Your task to perform on an android device: open app "Spotify" (install if not already installed) and go to login screen Image 0: 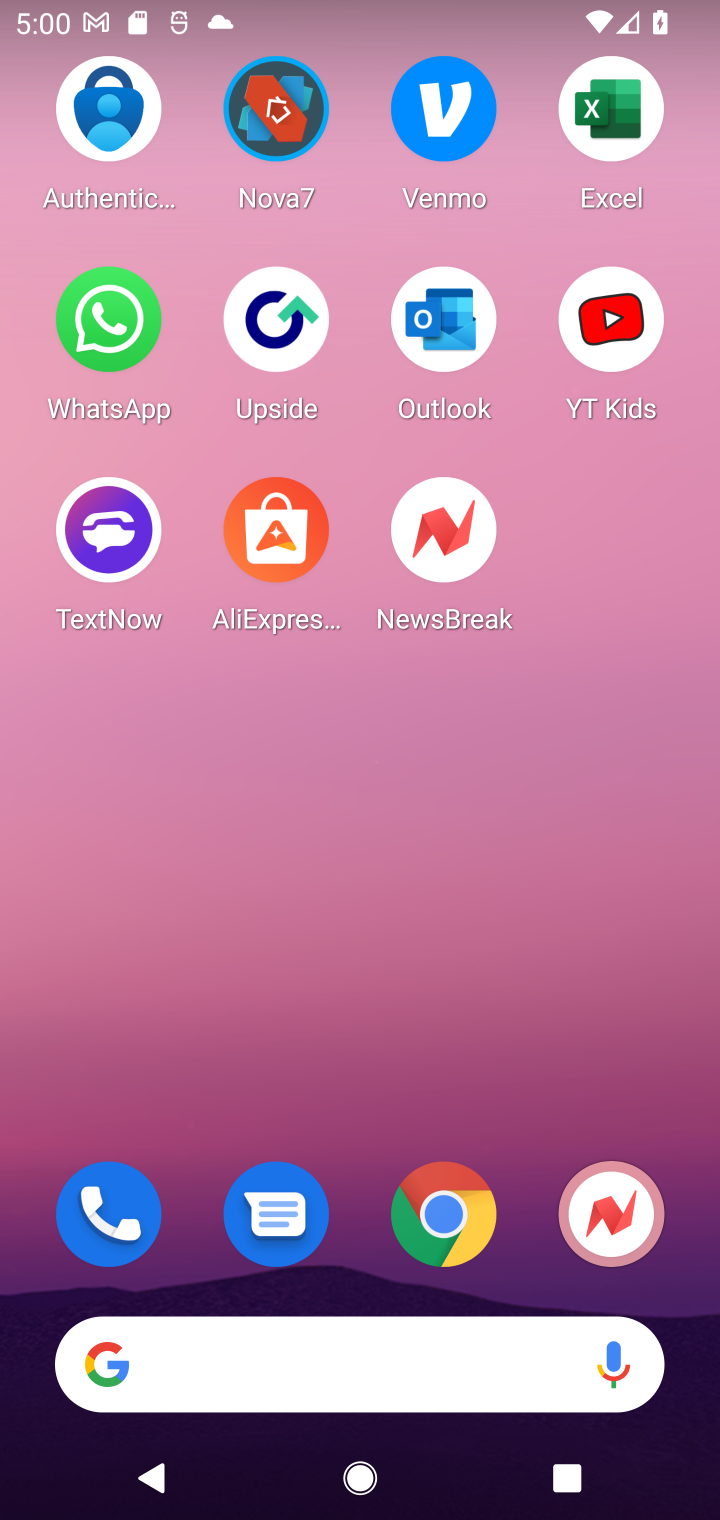
Step 0: drag from (367, 906) to (281, 50)
Your task to perform on an android device: open app "Spotify" (install if not already installed) and go to login screen Image 1: 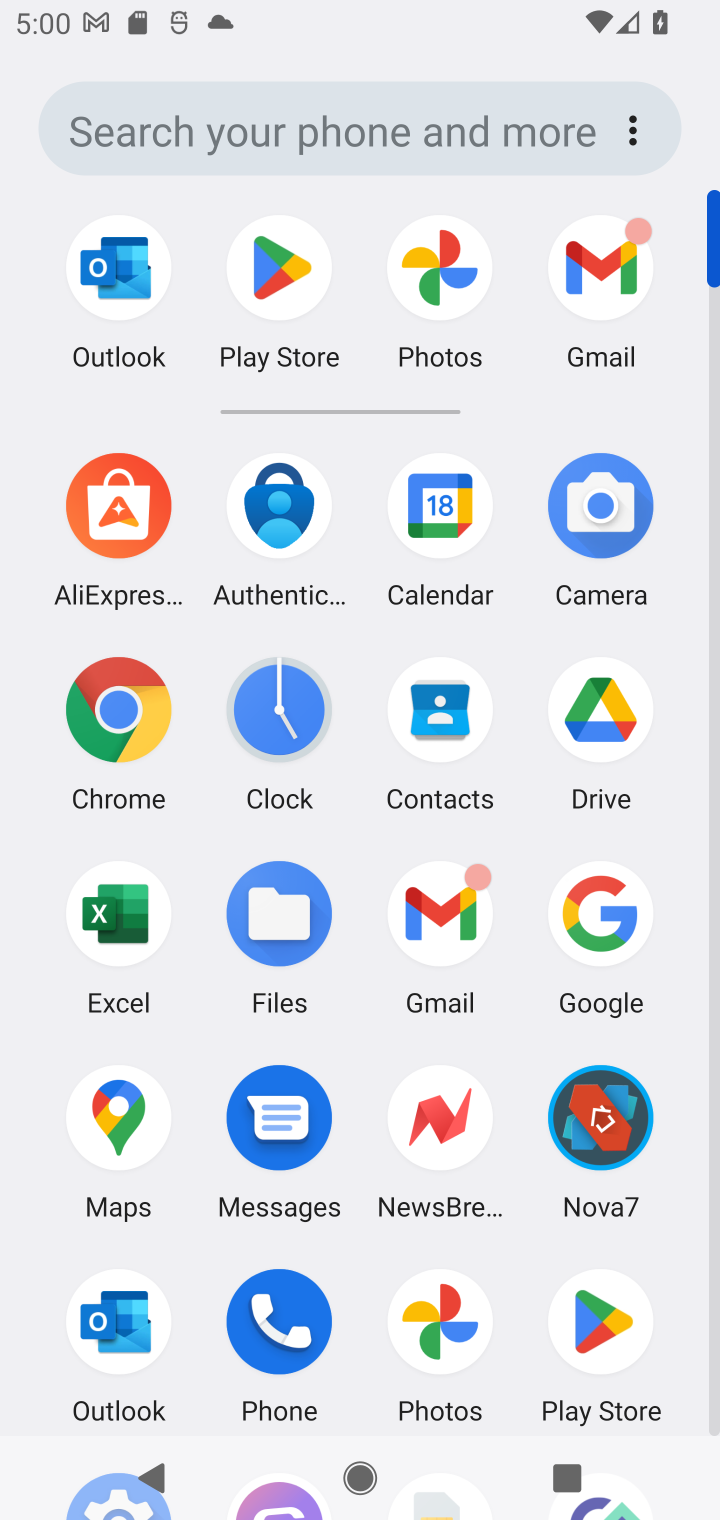
Step 1: click (600, 1351)
Your task to perform on an android device: open app "Spotify" (install if not already installed) and go to login screen Image 2: 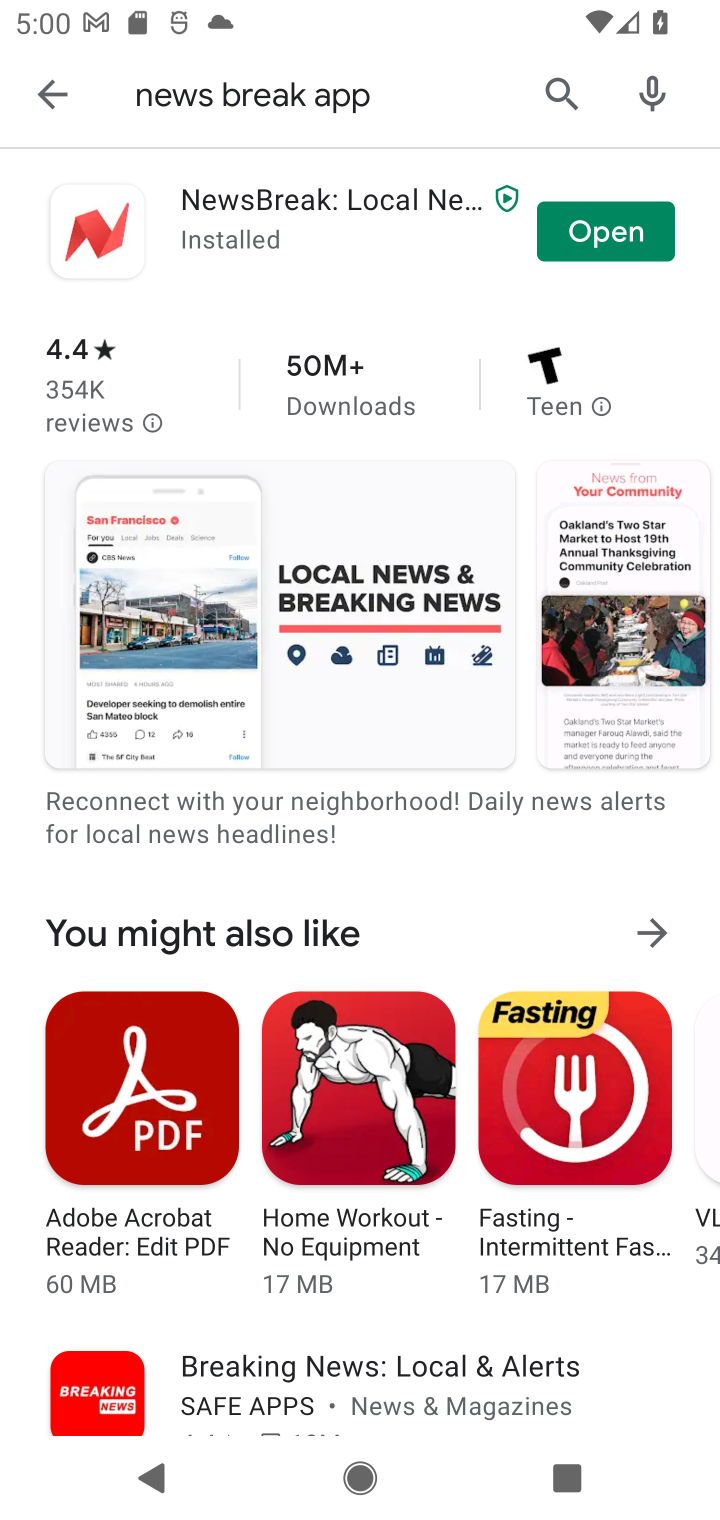
Step 2: click (380, 105)
Your task to perform on an android device: open app "Spotify" (install if not already installed) and go to login screen Image 3: 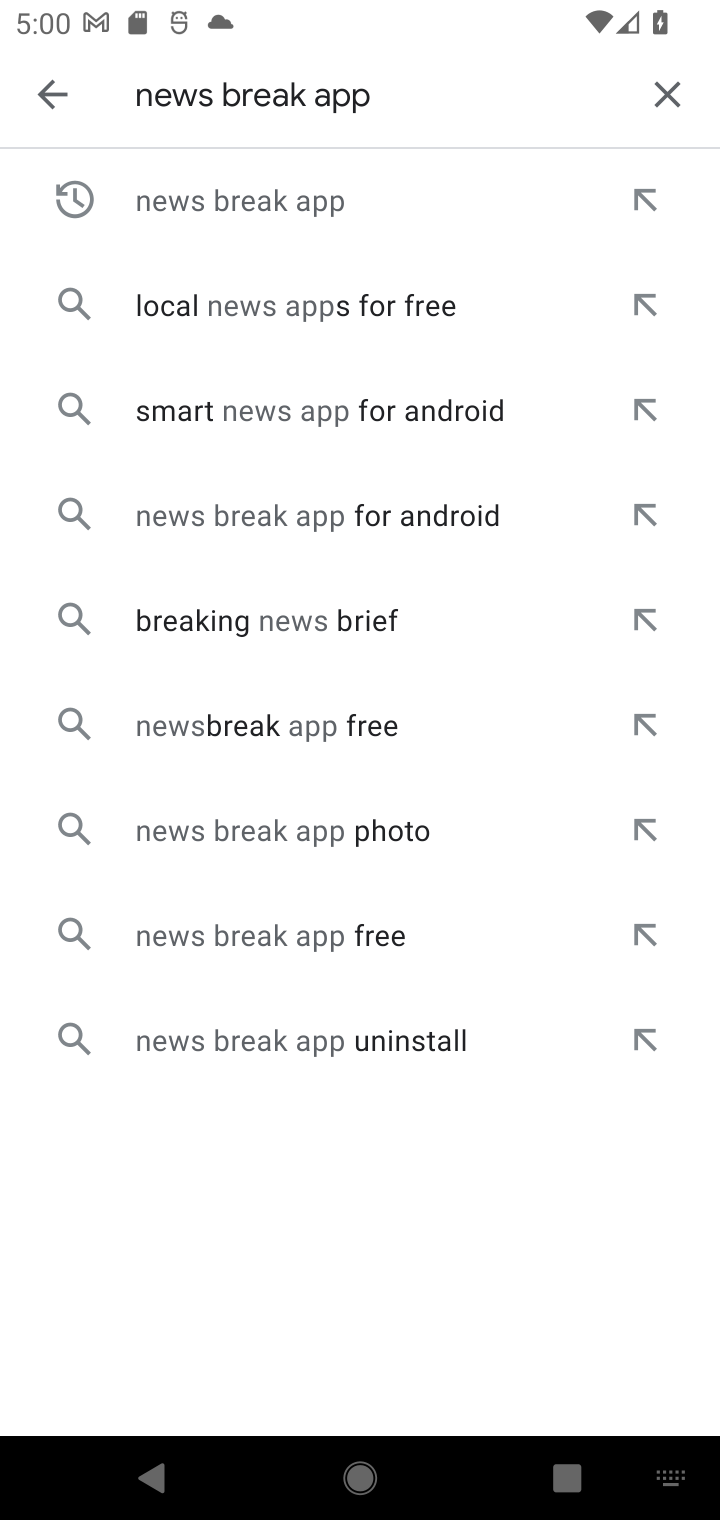
Step 3: click (658, 88)
Your task to perform on an android device: open app "Spotify" (install if not already installed) and go to login screen Image 4: 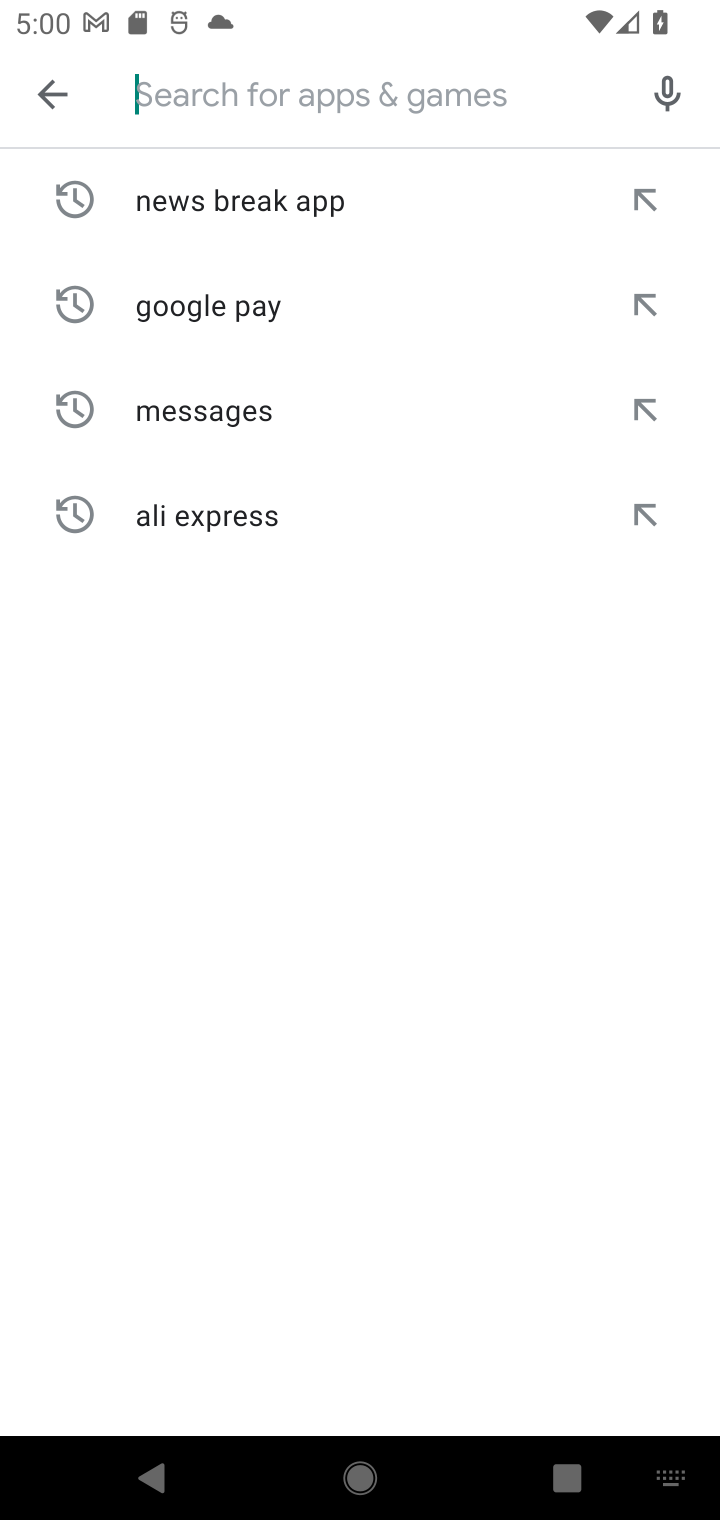
Step 4: type "spotify"
Your task to perform on an android device: open app "Spotify" (install if not already installed) and go to login screen Image 5: 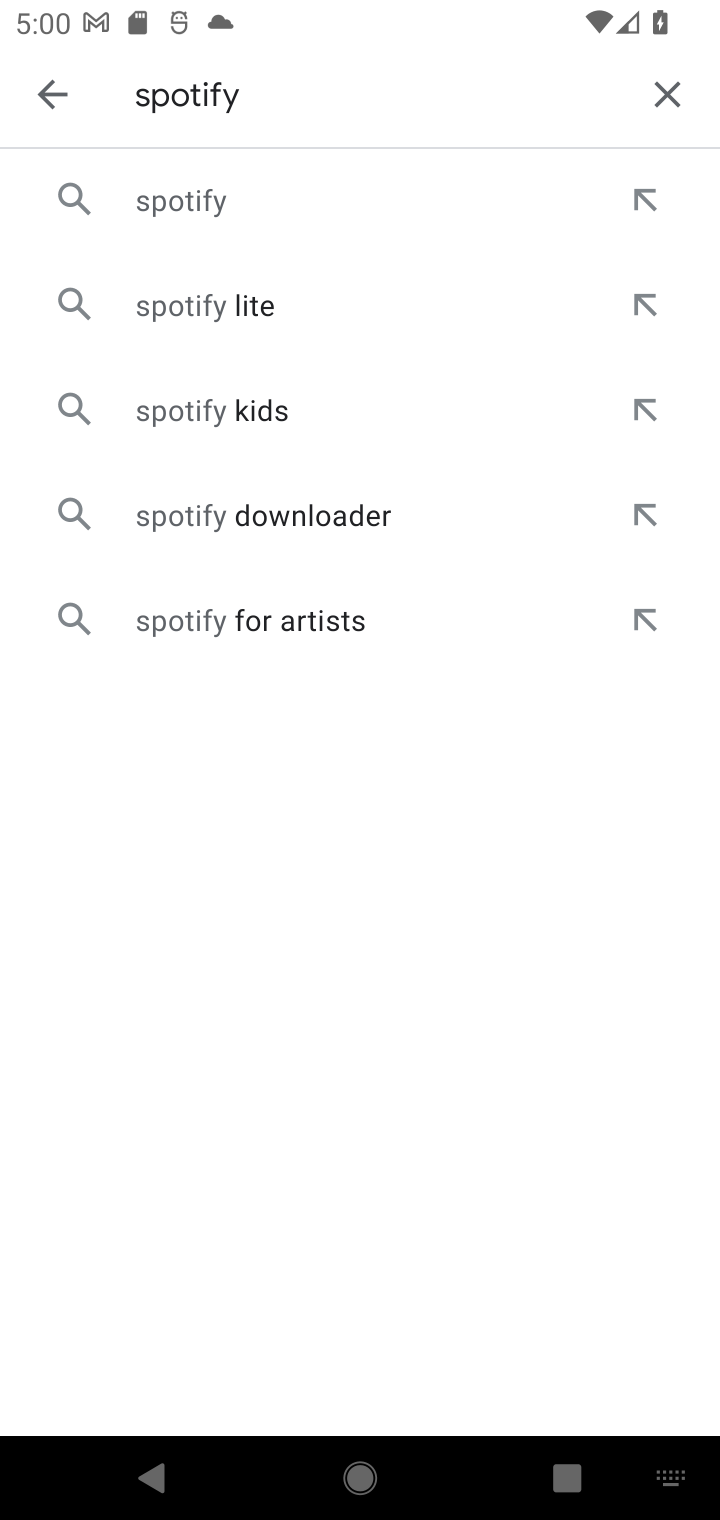
Step 5: click (235, 218)
Your task to perform on an android device: open app "Spotify" (install if not already installed) and go to login screen Image 6: 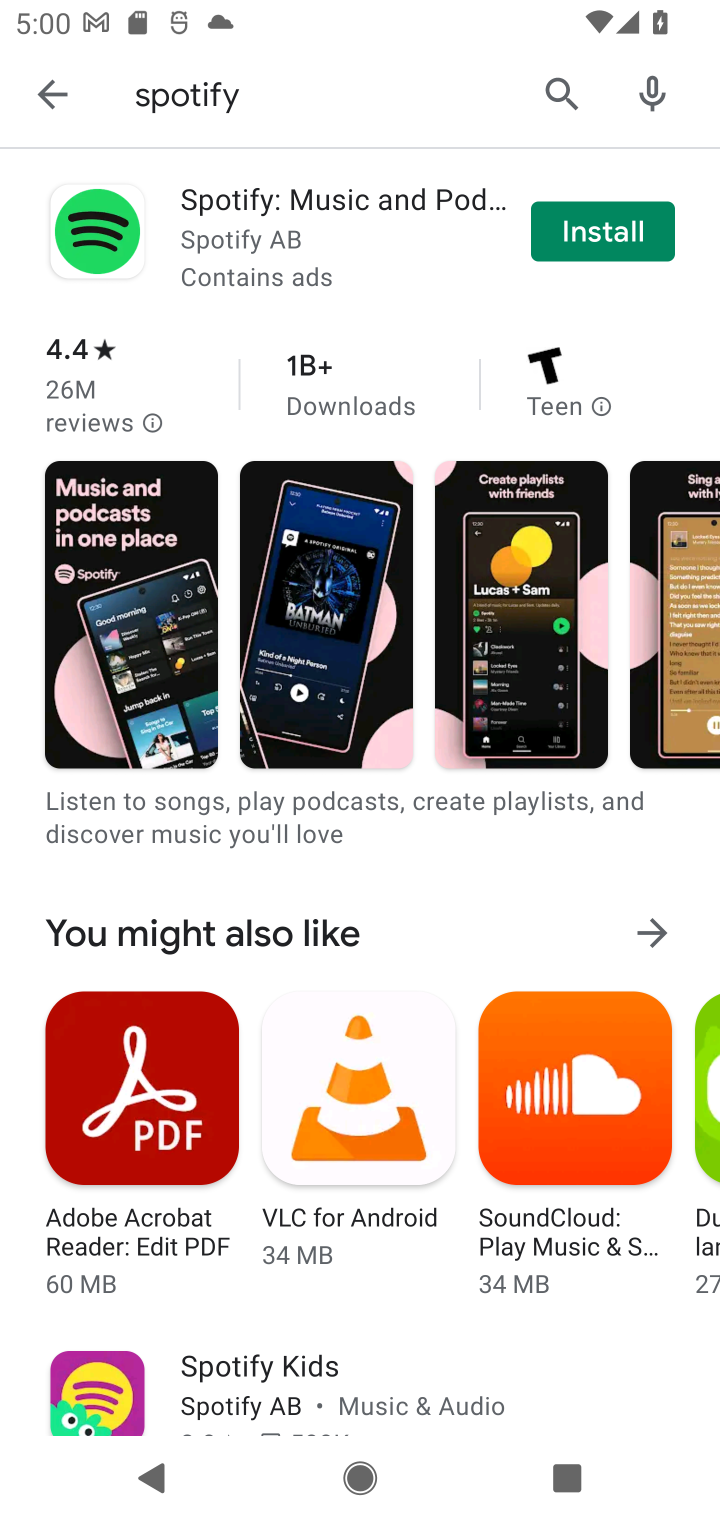
Step 6: click (588, 229)
Your task to perform on an android device: open app "Spotify" (install if not already installed) and go to login screen Image 7: 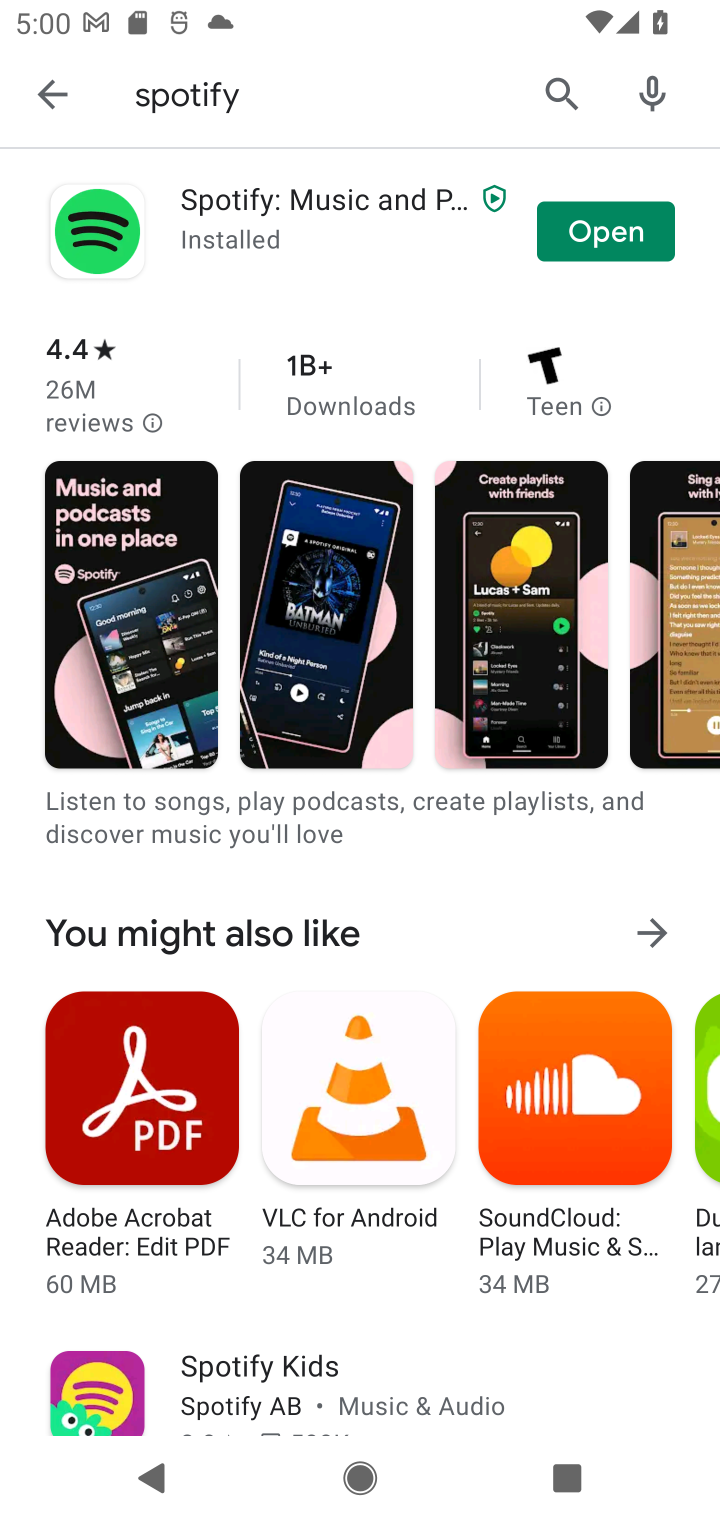
Step 7: click (636, 214)
Your task to perform on an android device: open app "Spotify" (install if not already installed) and go to login screen Image 8: 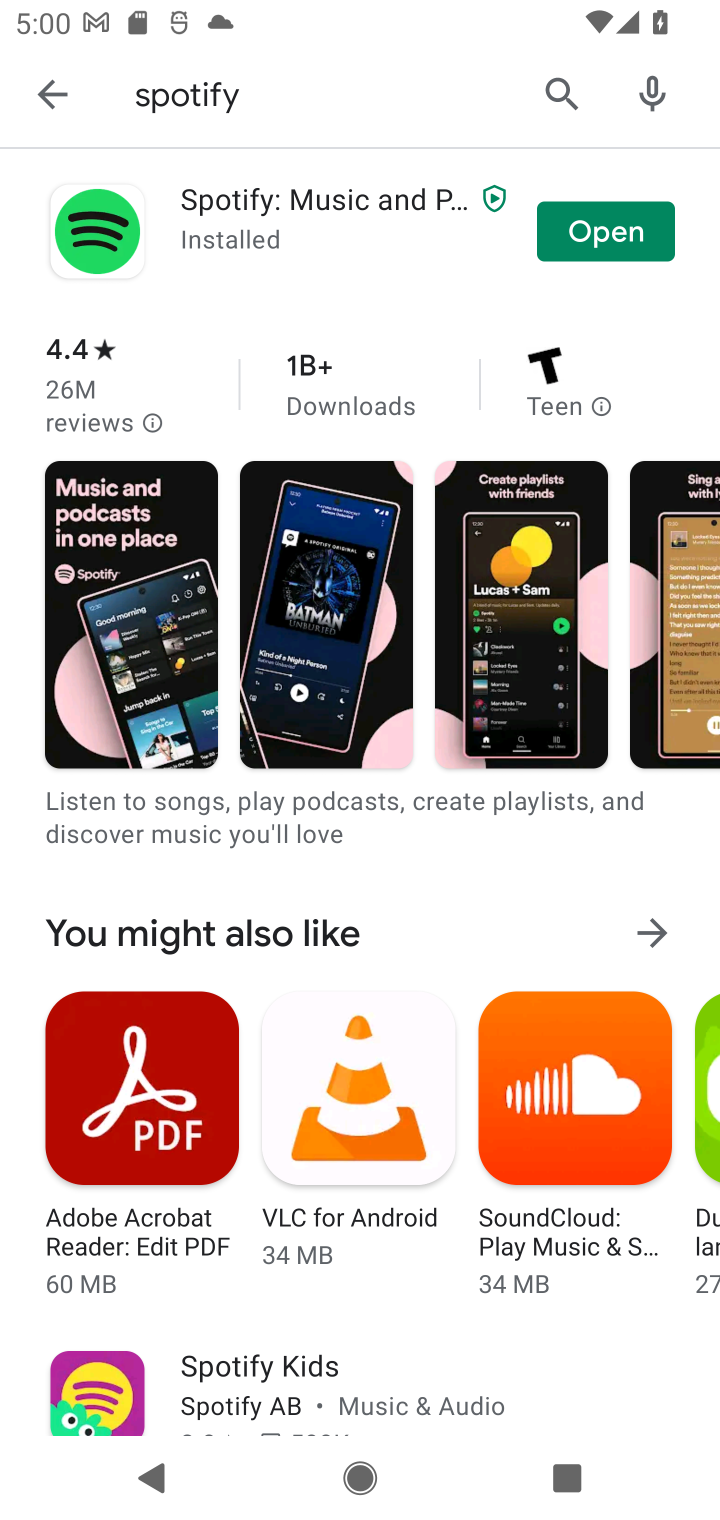
Step 8: click (592, 230)
Your task to perform on an android device: open app "Spotify" (install if not already installed) and go to login screen Image 9: 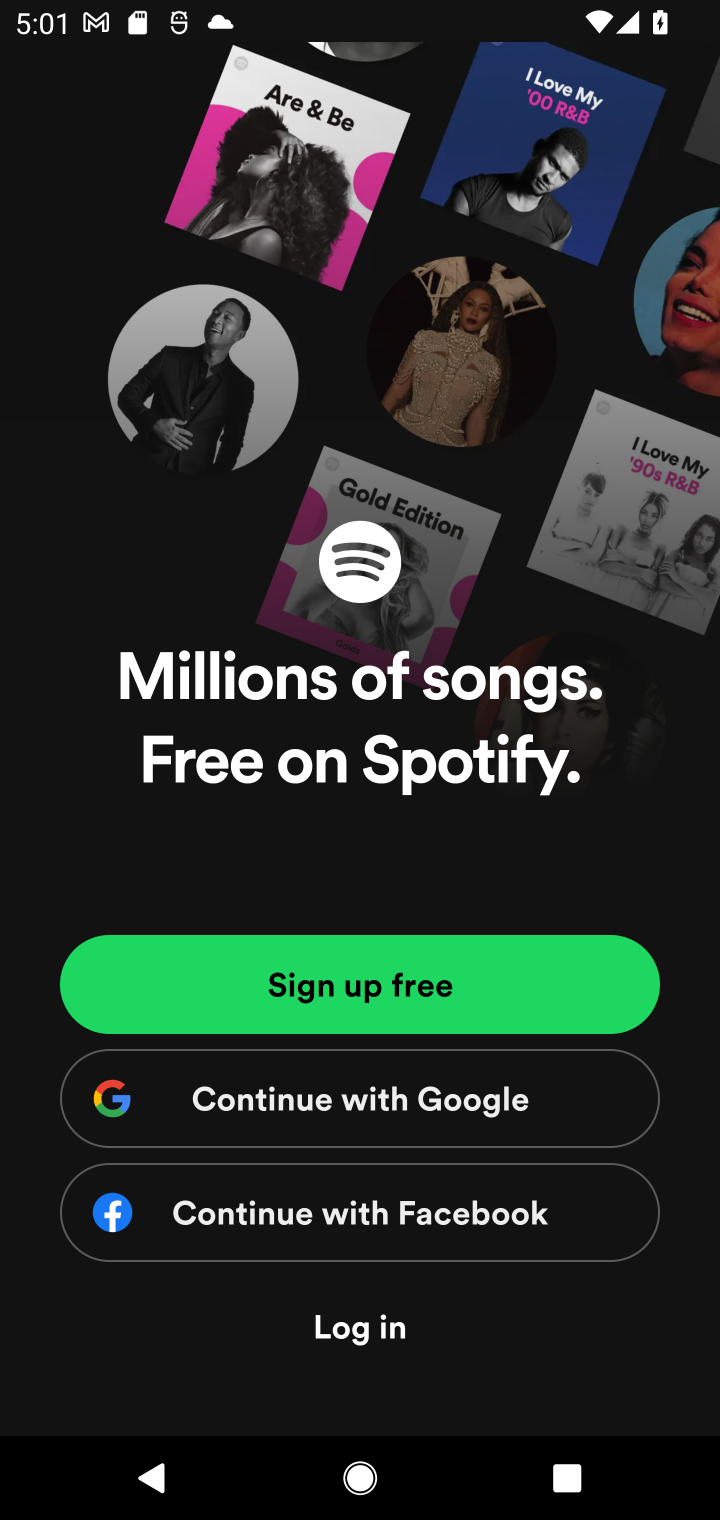
Step 9: click (362, 1326)
Your task to perform on an android device: open app "Spotify" (install if not already installed) and go to login screen Image 10: 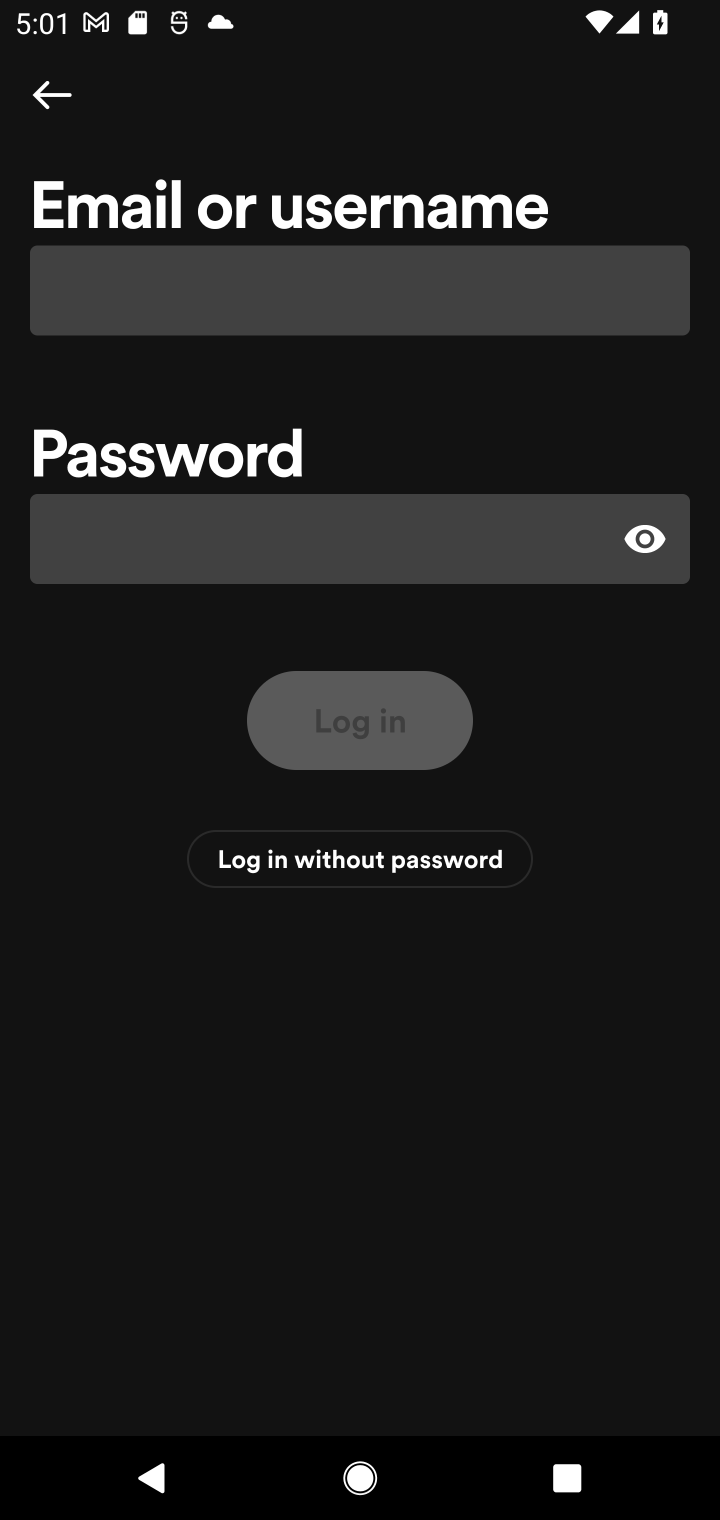
Step 10: task complete